Your task to perform on an android device: When is my next appointment? Image 0: 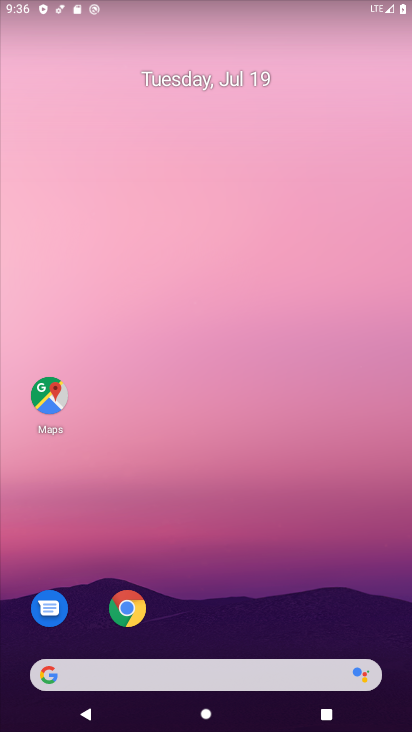
Step 0: press home button
Your task to perform on an android device: When is my next appointment? Image 1: 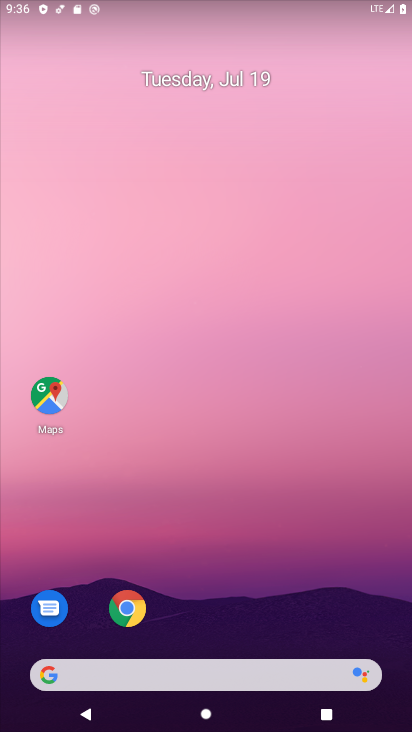
Step 1: drag from (294, 647) to (325, 24)
Your task to perform on an android device: When is my next appointment? Image 2: 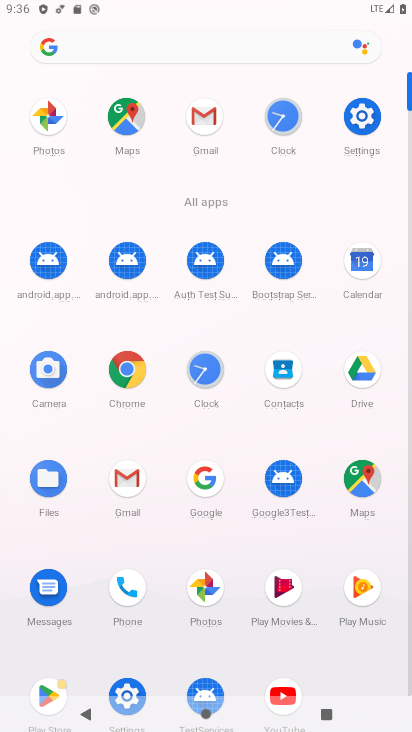
Step 2: click (369, 266)
Your task to perform on an android device: When is my next appointment? Image 3: 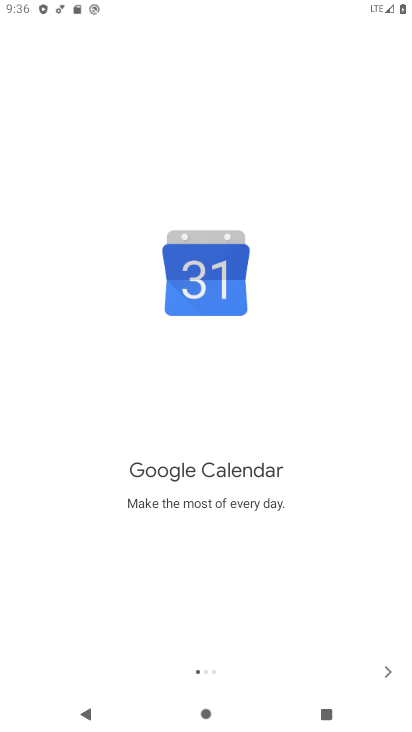
Step 3: click (384, 669)
Your task to perform on an android device: When is my next appointment? Image 4: 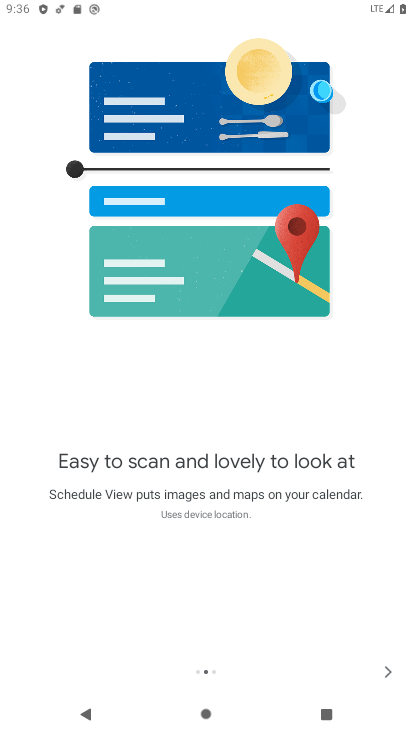
Step 4: click (384, 669)
Your task to perform on an android device: When is my next appointment? Image 5: 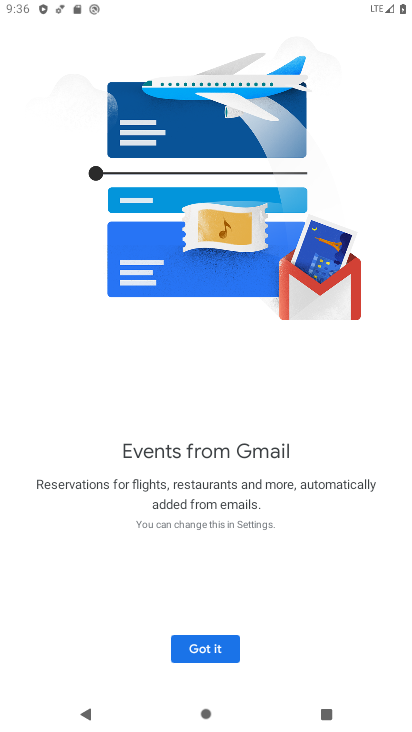
Step 5: click (232, 650)
Your task to perform on an android device: When is my next appointment? Image 6: 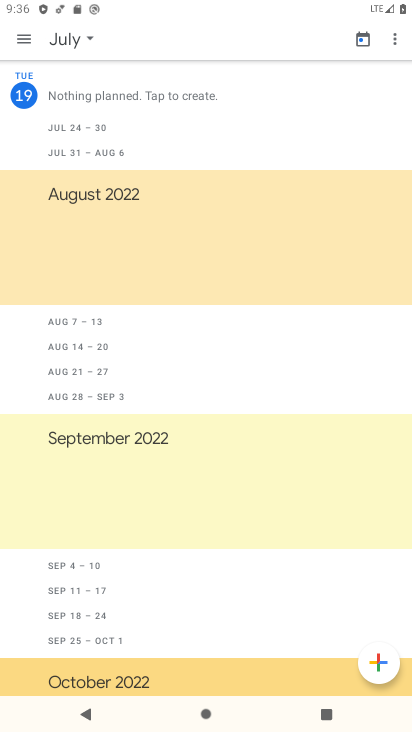
Step 6: click (79, 39)
Your task to perform on an android device: When is my next appointment? Image 7: 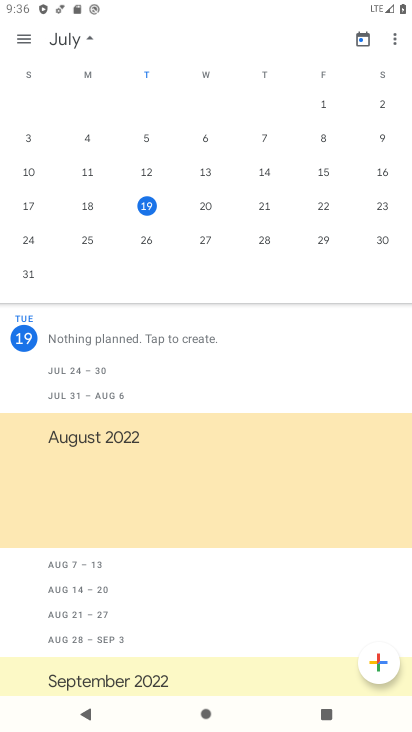
Step 7: click (144, 206)
Your task to perform on an android device: When is my next appointment? Image 8: 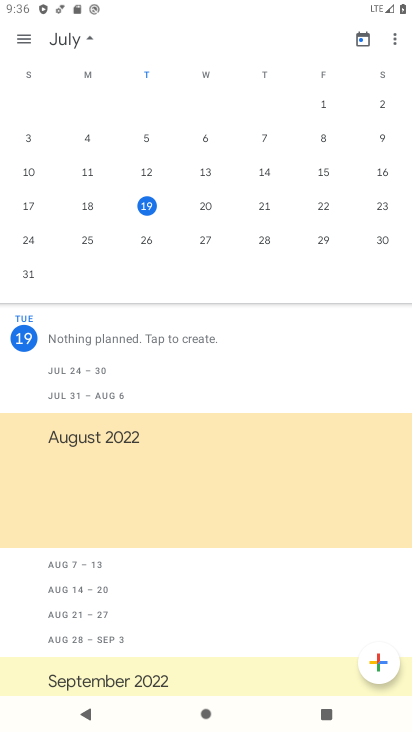
Step 8: task complete